Your task to perform on an android device: Open settings Image 0: 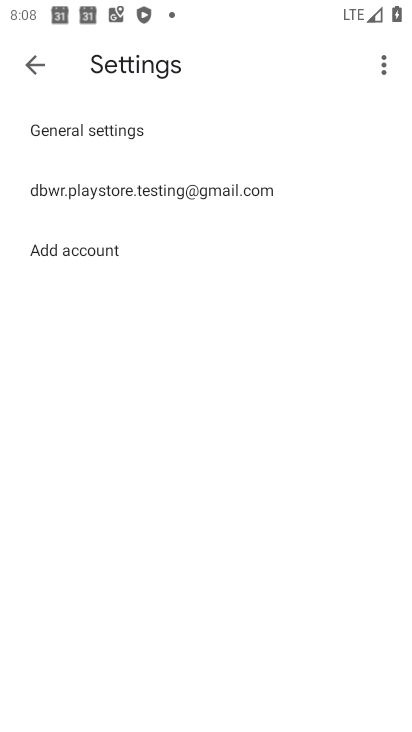
Step 0: press home button
Your task to perform on an android device: Open settings Image 1: 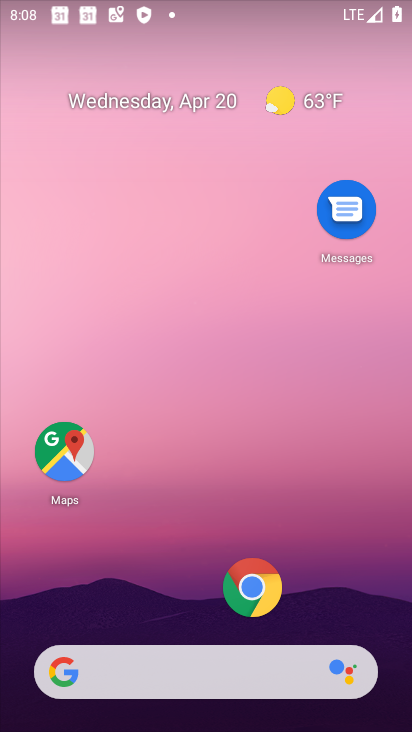
Step 1: drag from (175, 684) to (299, 54)
Your task to perform on an android device: Open settings Image 2: 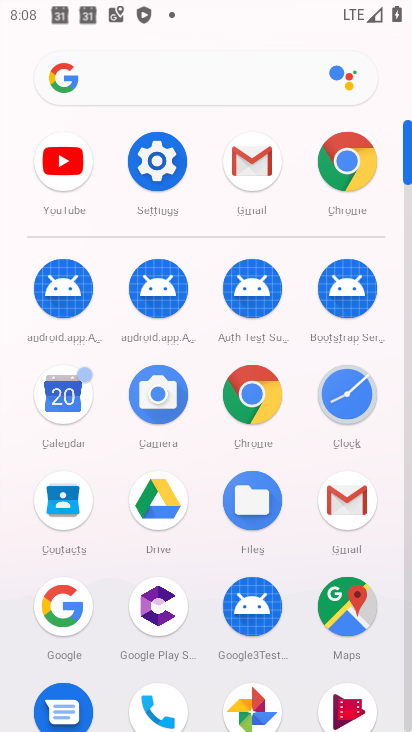
Step 2: click (156, 172)
Your task to perform on an android device: Open settings Image 3: 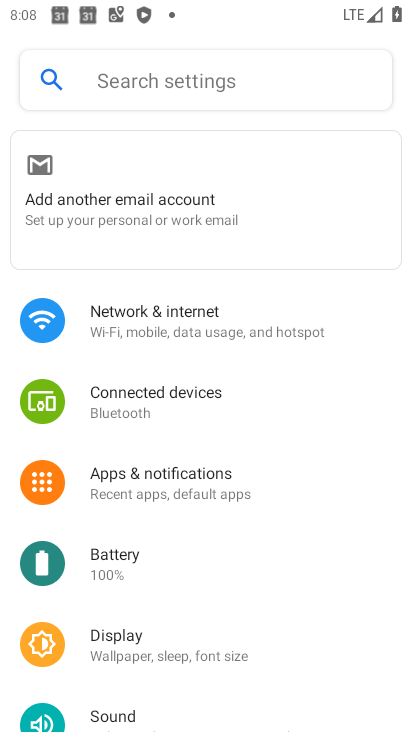
Step 3: task complete